Your task to perform on an android device: Go to CNN.com Image 0: 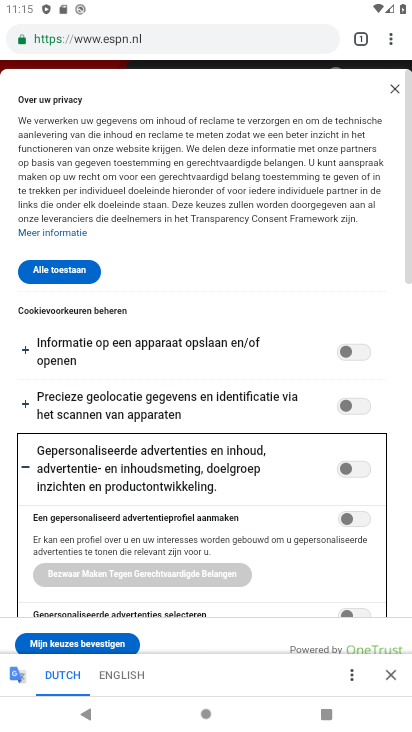
Step 0: click (210, 44)
Your task to perform on an android device: Go to CNN.com Image 1: 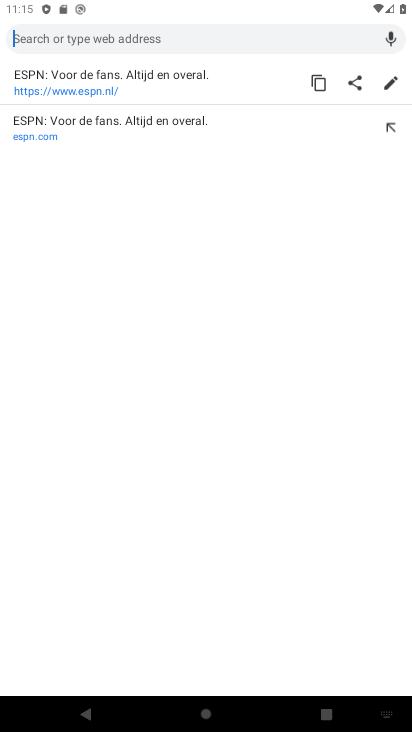
Step 1: type "cnn"
Your task to perform on an android device: Go to CNN.com Image 2: 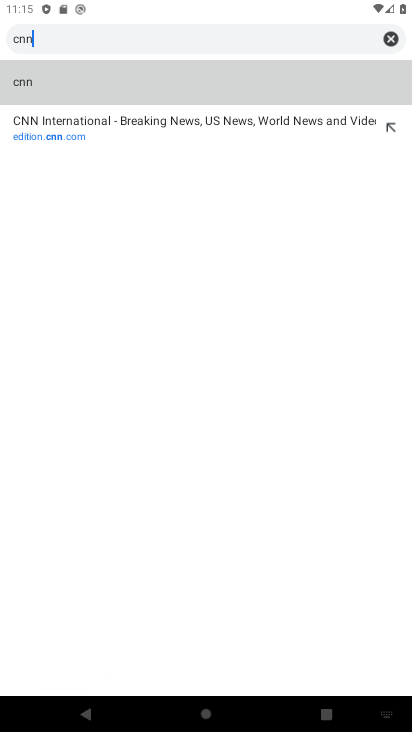
Step 2: click (164, 125)
Your task to perform on an android device: Go to CNN.com Image 3: 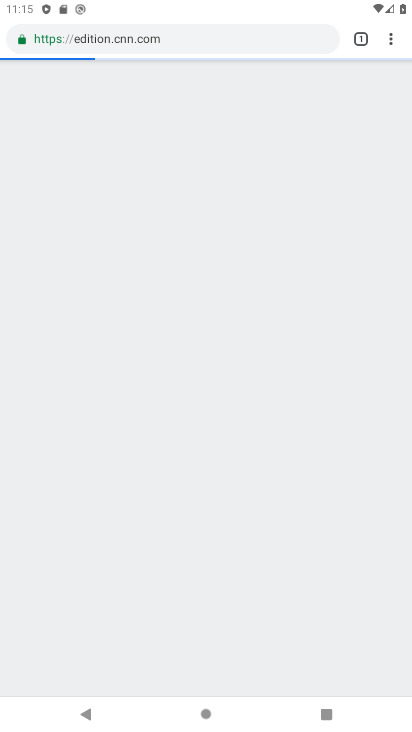
Step 3: task complete